Your task to perform on an android device: check battery use Image 0: 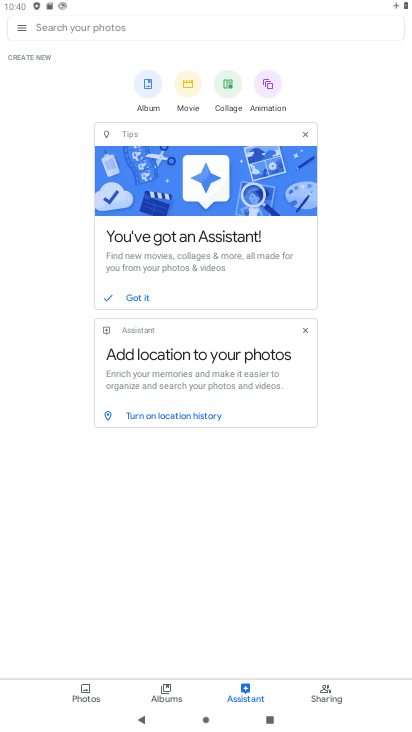
Step 0: press home button
Your task to perform on an android device: check battery use Image 1: 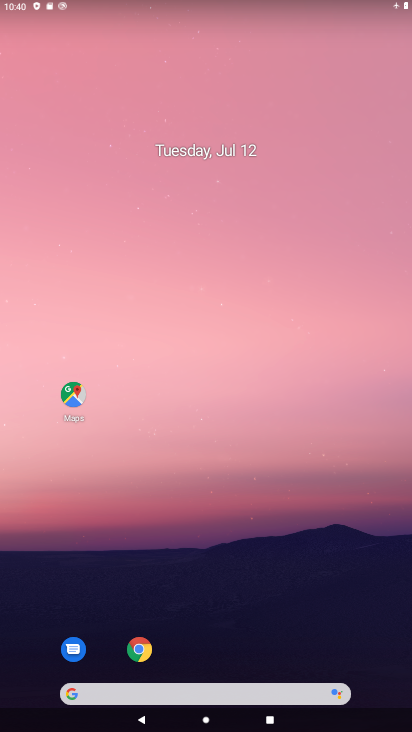
Step 1: drag from (355, 652) to (323, 154)
Your task to perform on an android device: check battery use Image 2: 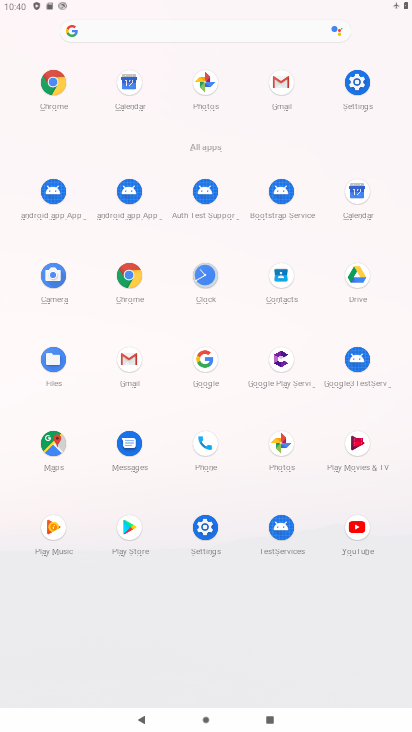
Step 2: click (204, 526)
Your task to perform on an android device: check battery use Image 3: 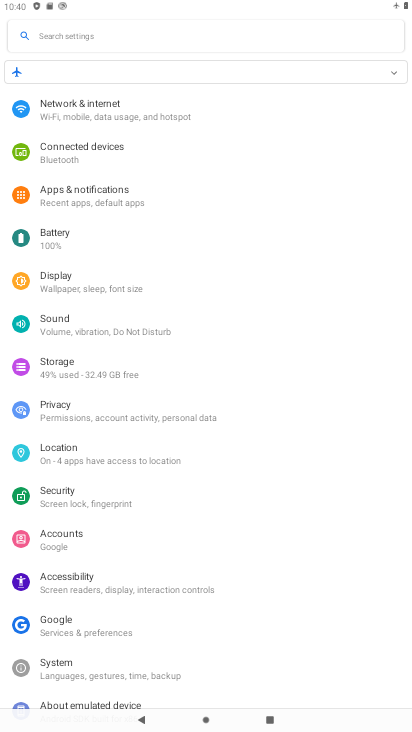
Step 3: click (54, 227)
Your task to perform on an android device: check battery use Image 4: 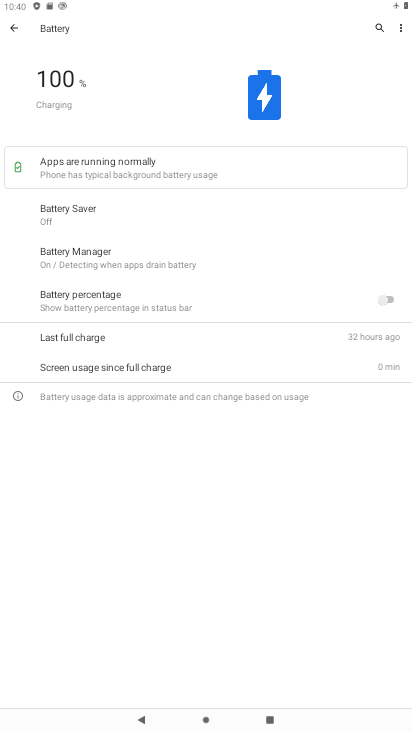
Step 4: click (399, 28)
Your task to perform on an android device: check battery use Image 5: 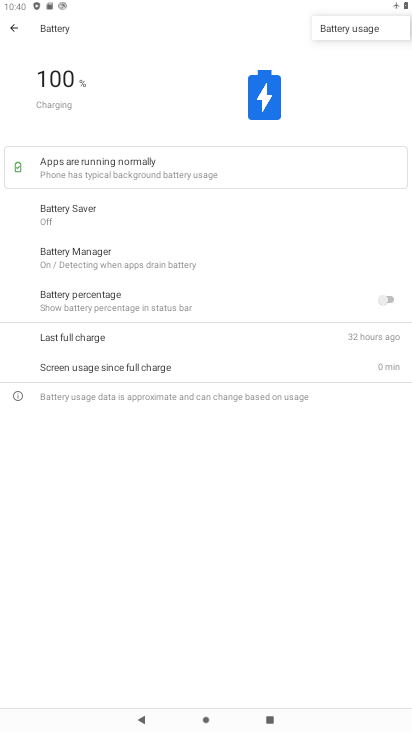
Step 5: click (349, 28)
Your task to perform on an android device: check battery use Image 6: 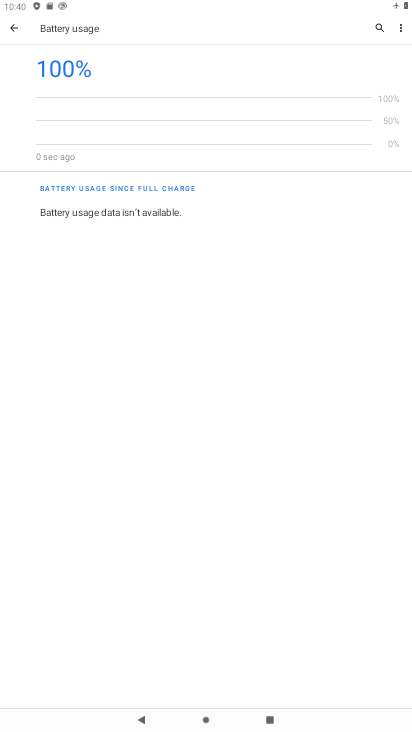
Step 6: task complete